Your task to perform on an android device: uninstall "Etsy: Buy & Sell Unique Items" Image 0: 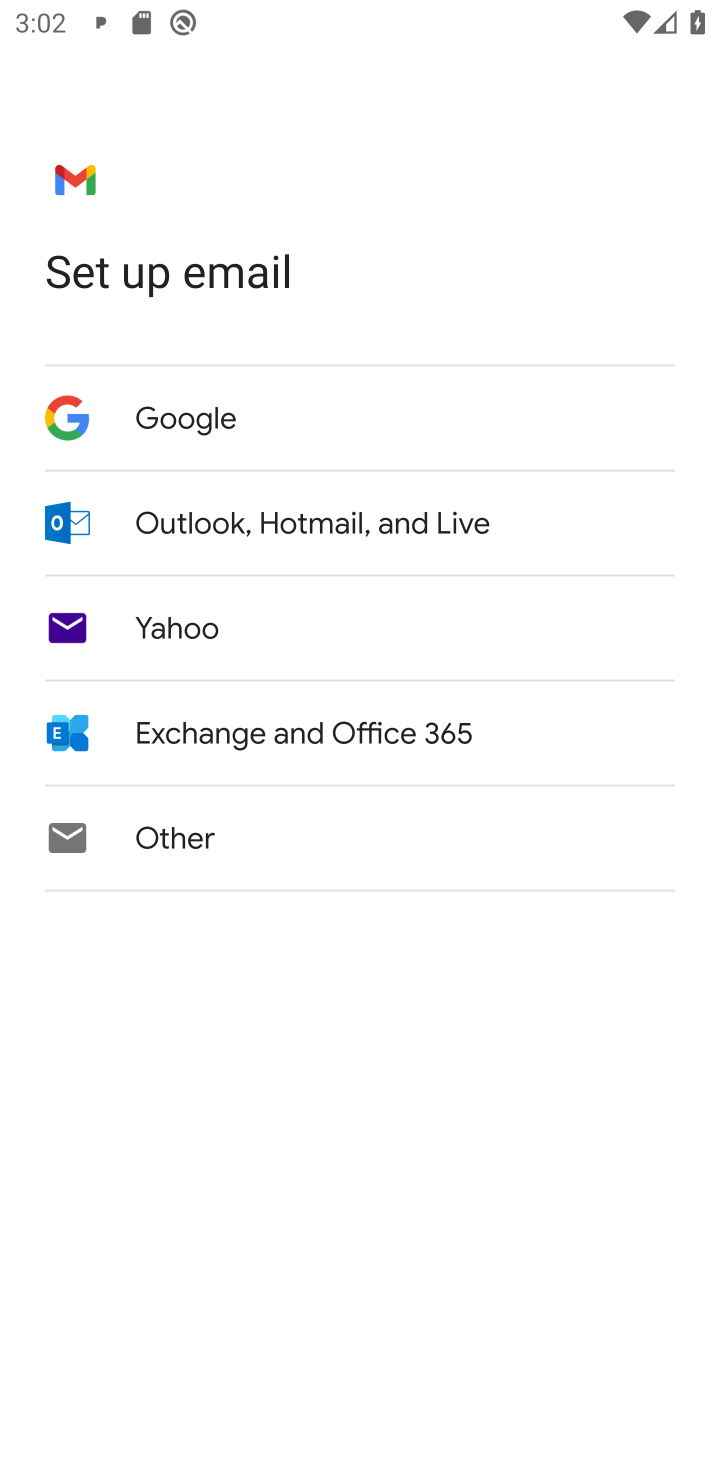
Step 0: press home button
Your task to perform on an android device: uninstall "Etsy: Buy & Sell Unique Items" Image 1: 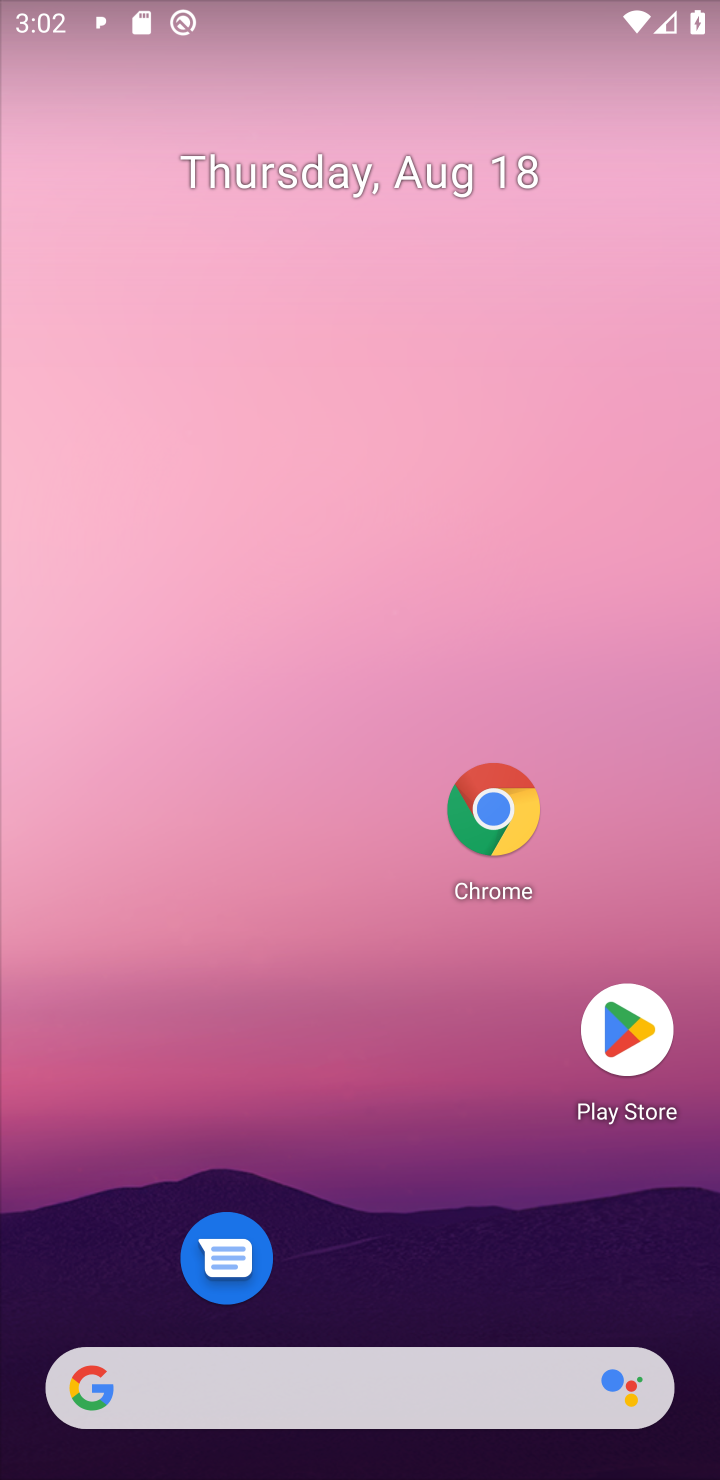
Step 1: drag from (375, 1254) to (382, 391)
Your task to perform on an android device: uninstall "Etsy: Buy & Sell Unique Items" Image 2: 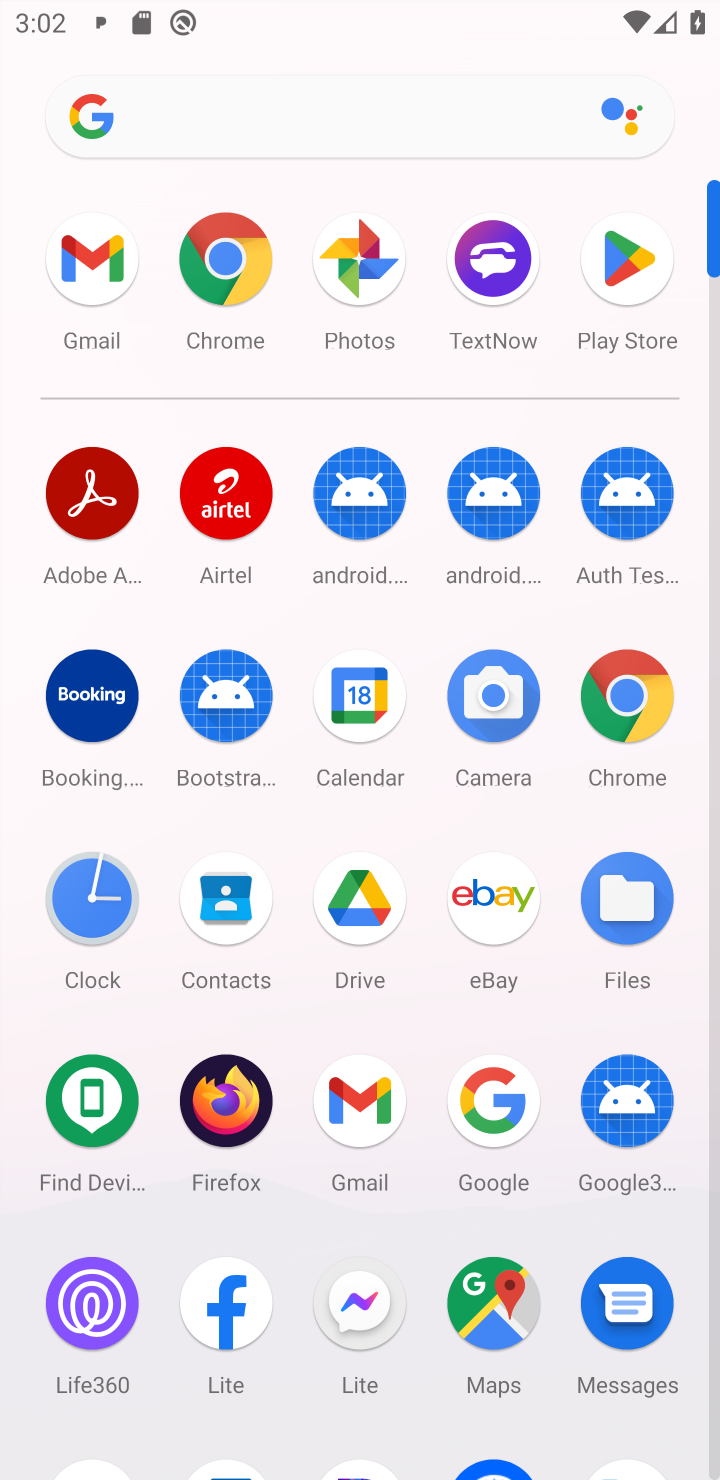
Step 2: click (620, 255)
Your task to perform on an android device: uninstall "Etsy: Buy & Sell Unique Items" Image 3: 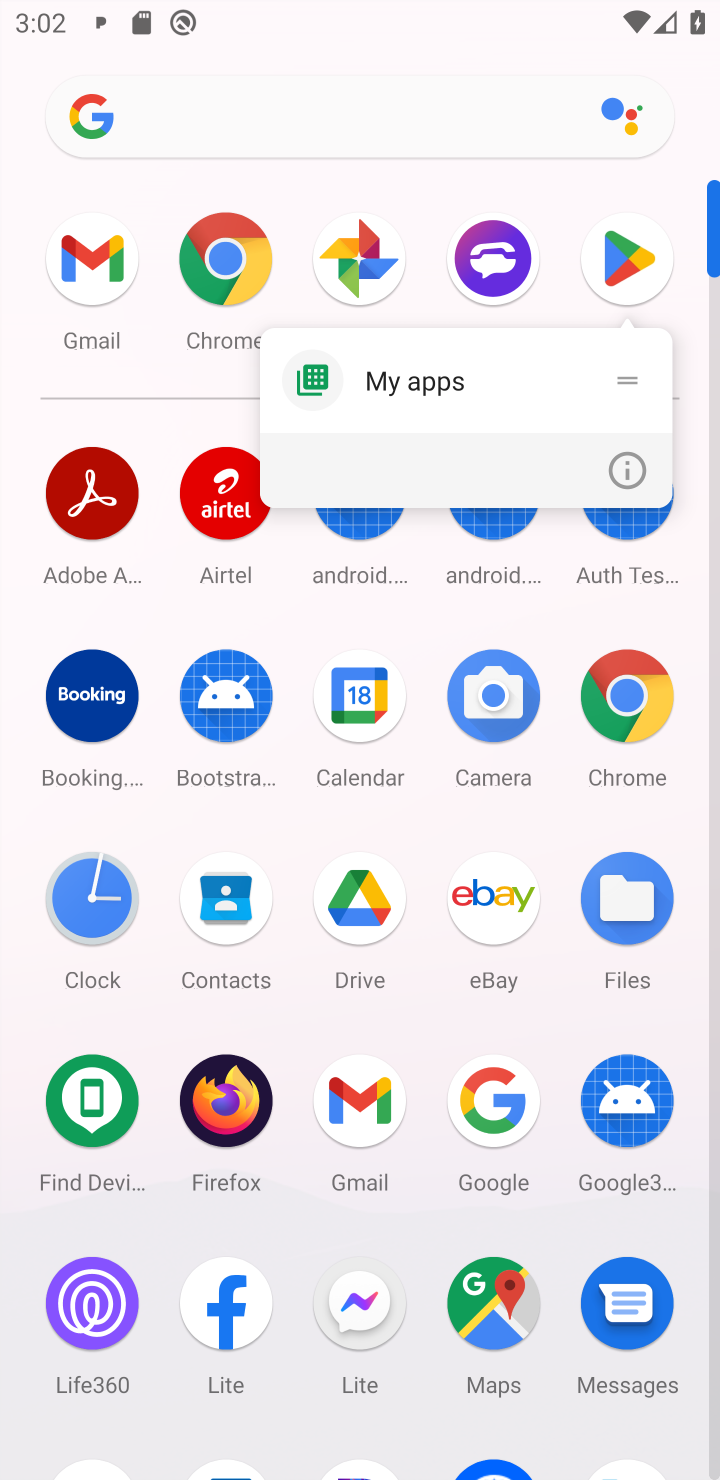
Step 3: click (620, 255)
Your task to perform on an android device: uninstall "Etsy: Buy & Sell Unique Items" Image 4: 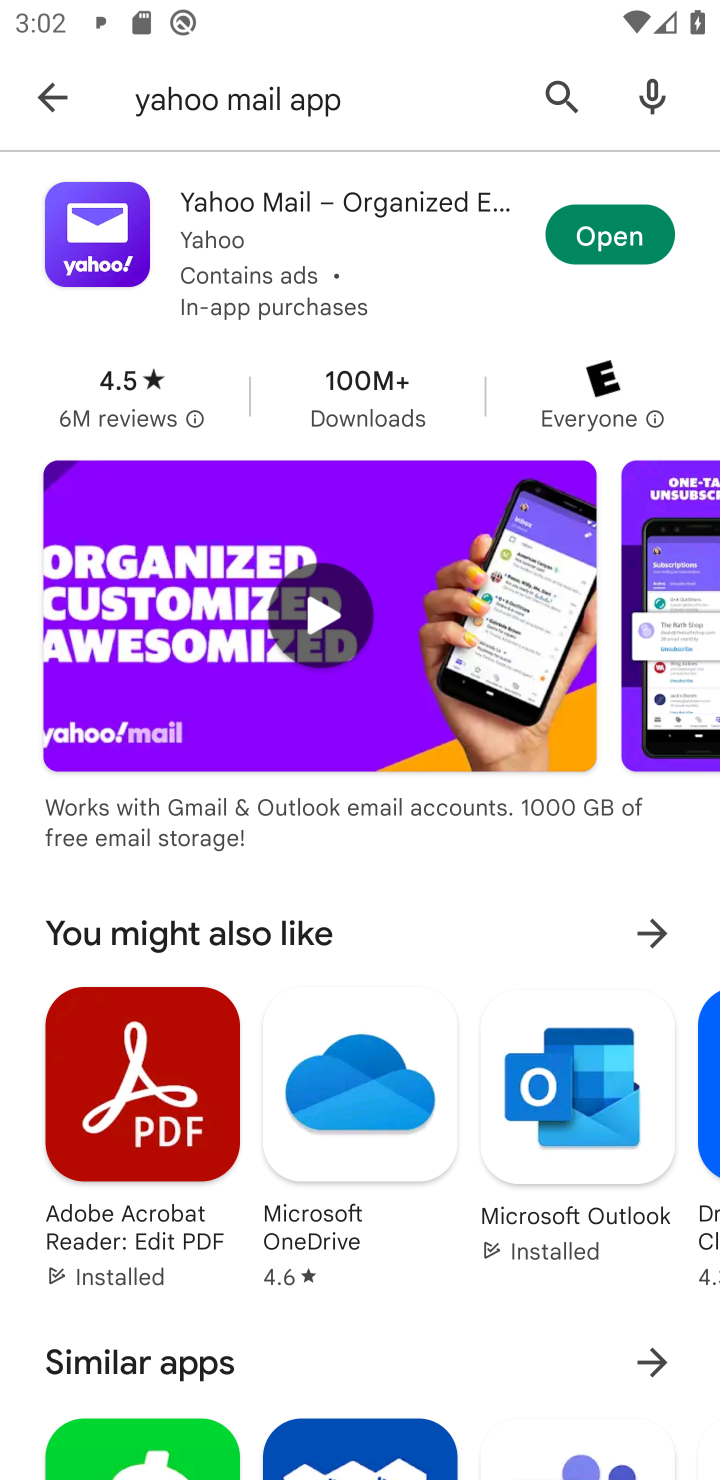
Step 4: click (50, 104)
Your task to perform on an android device: uninstall "Etsy: Buy & Sell Unique Items" Image 5: 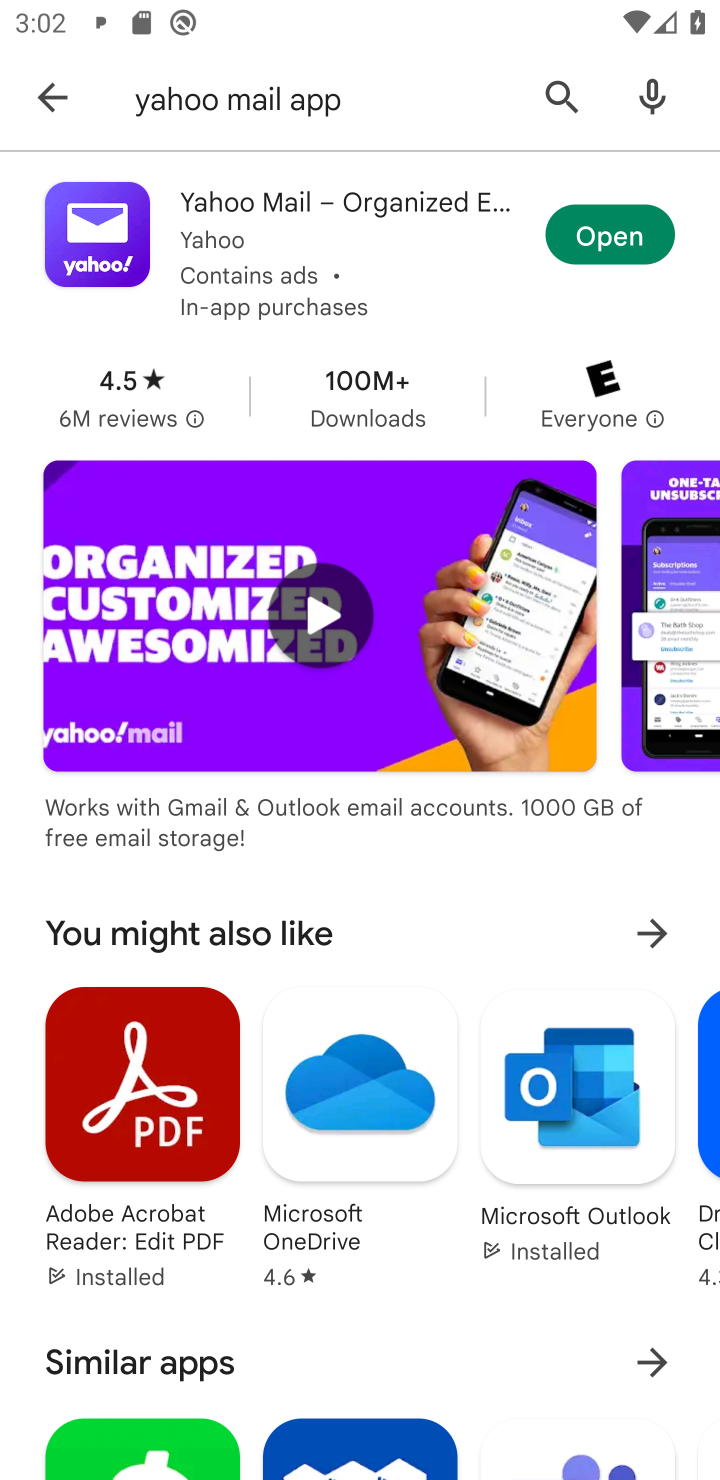
Step 5: click (563, 93)
Your task to perform on an android device: uninstall "Etsy: Buy & Sell Unique Items" Image 6: 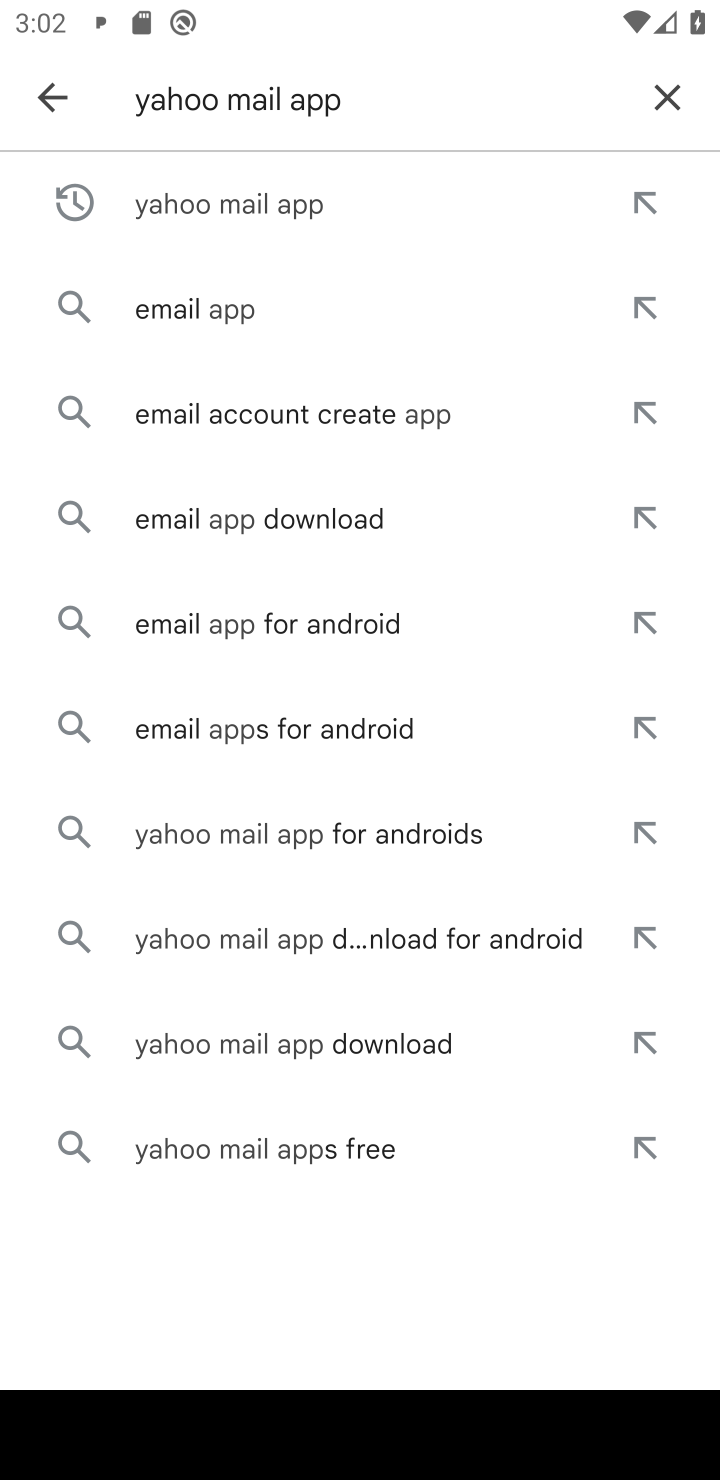
Step 6: click (658, 101)
Your task to perform on an android device: uninstall "Etsy: Buy & Sell Unique Items" Image 7: 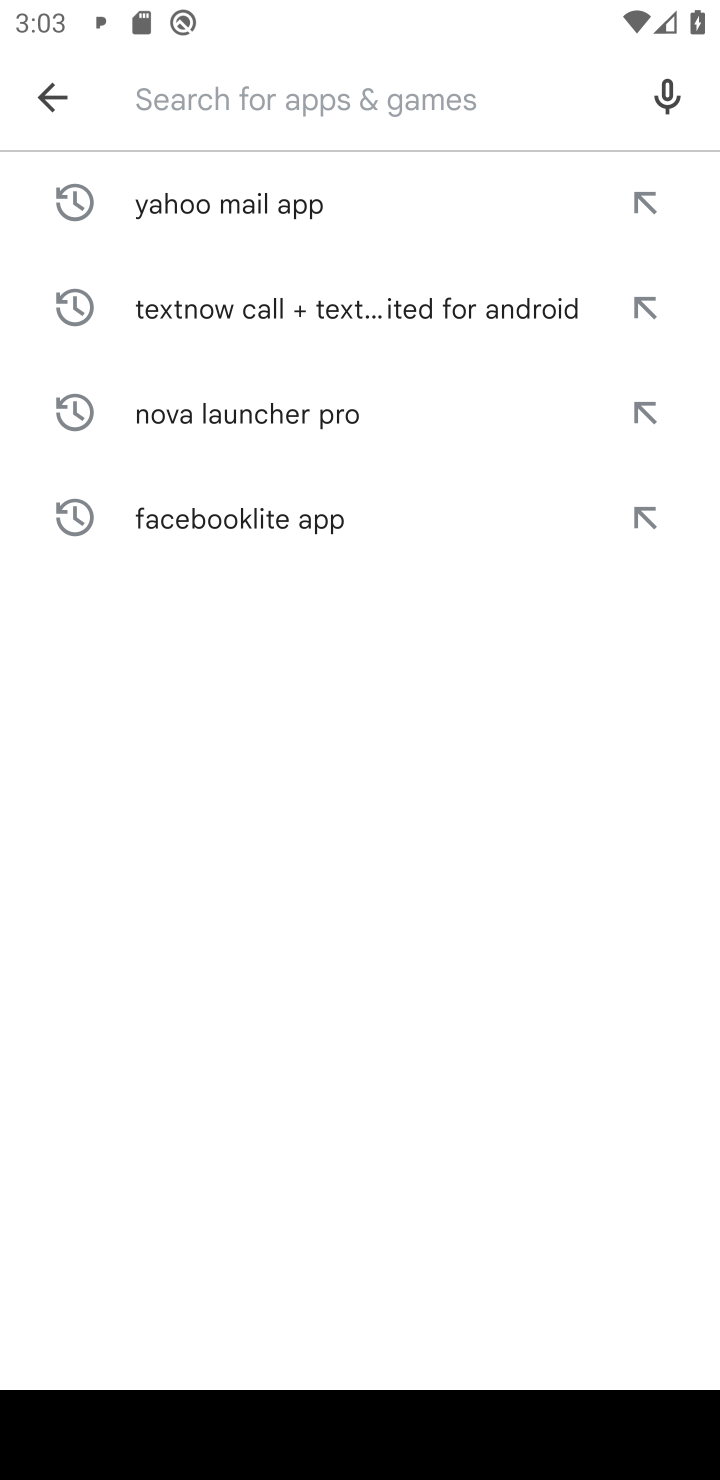
Step 7: click (421, 94)
Your task to perform on an android device: uninstall "Etsy: Buy & Sell Unique Items" Image 8: 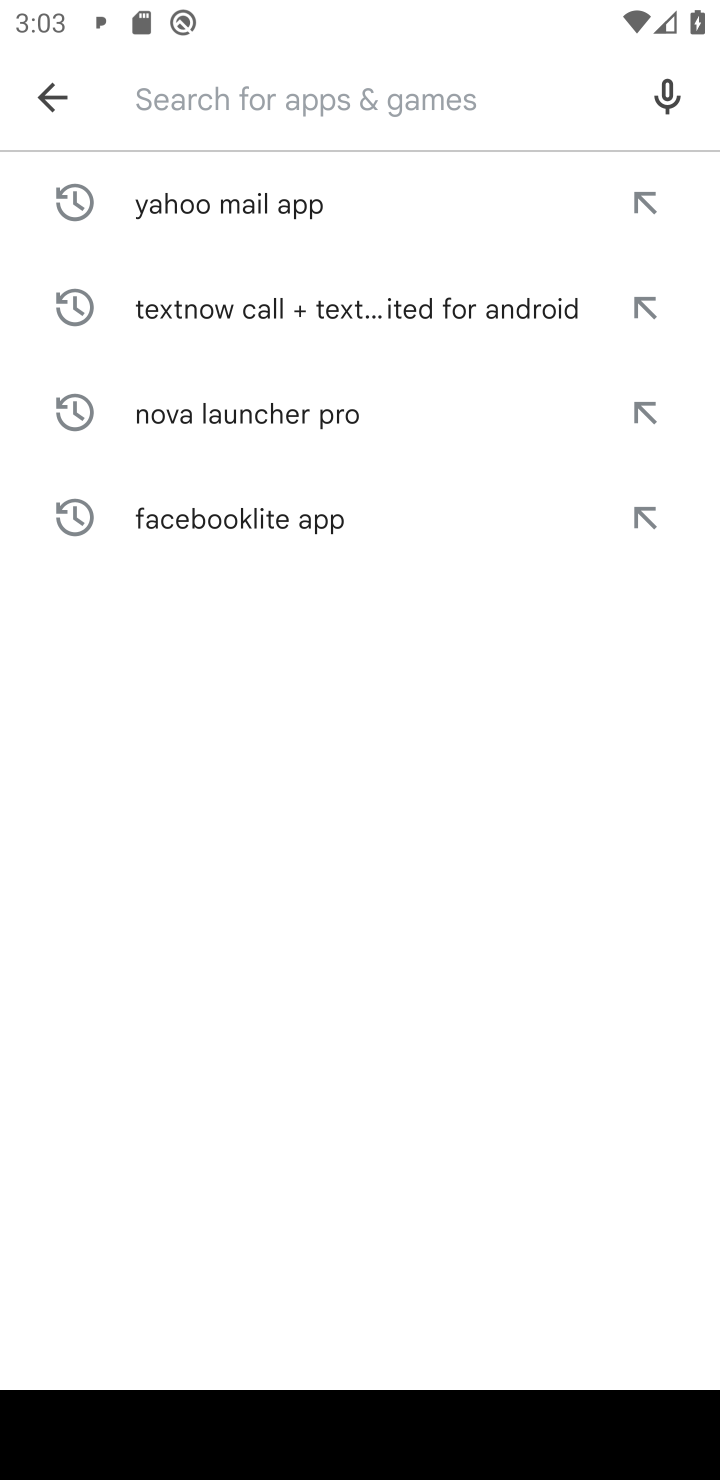
Step 8: type "Etsy: Buy & Sell Unique Items "
Your task to perform on an android device: uninstall "Etsy: Buy & Sell Unique Items" Image 9: 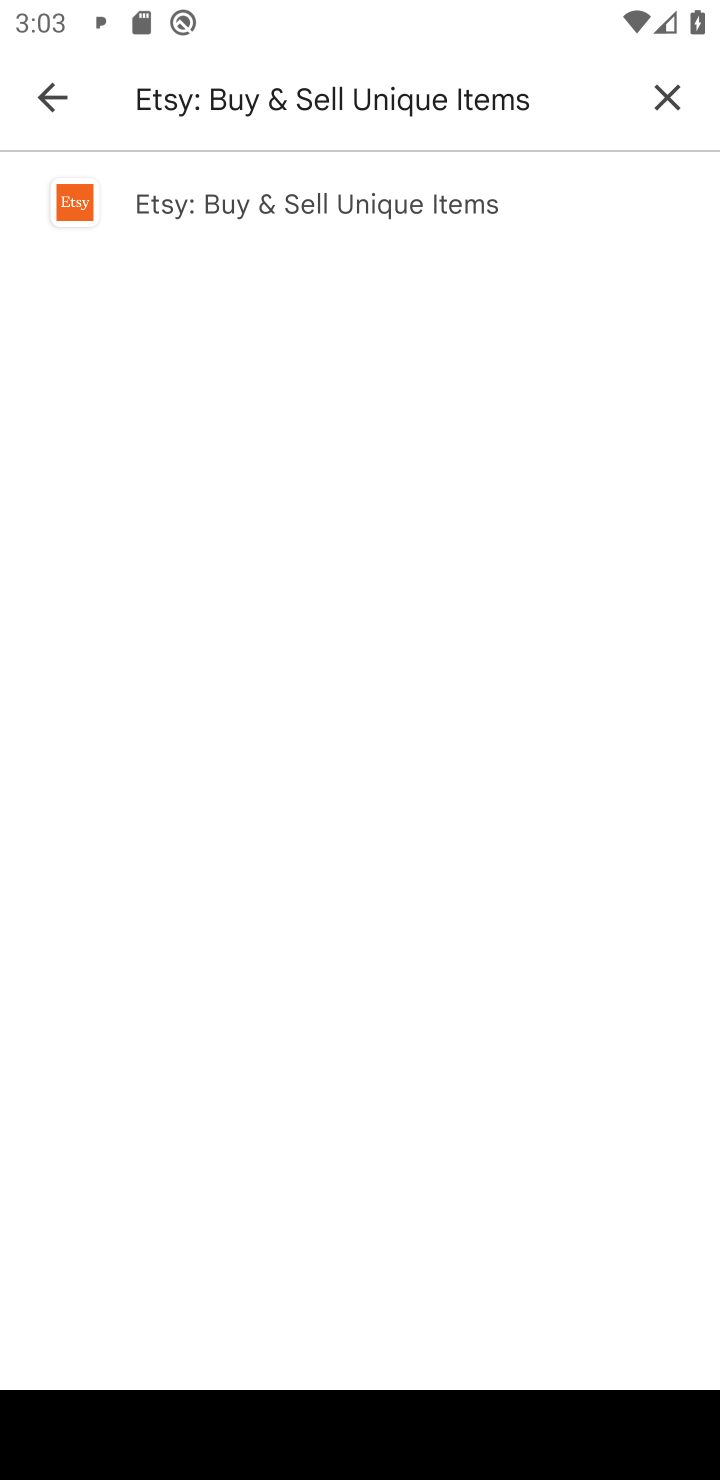
Step 9: click (328, 198)
Your task to perform on an android device: uninstall "Etsy: Buy & Sell Unique Items" Image 10: 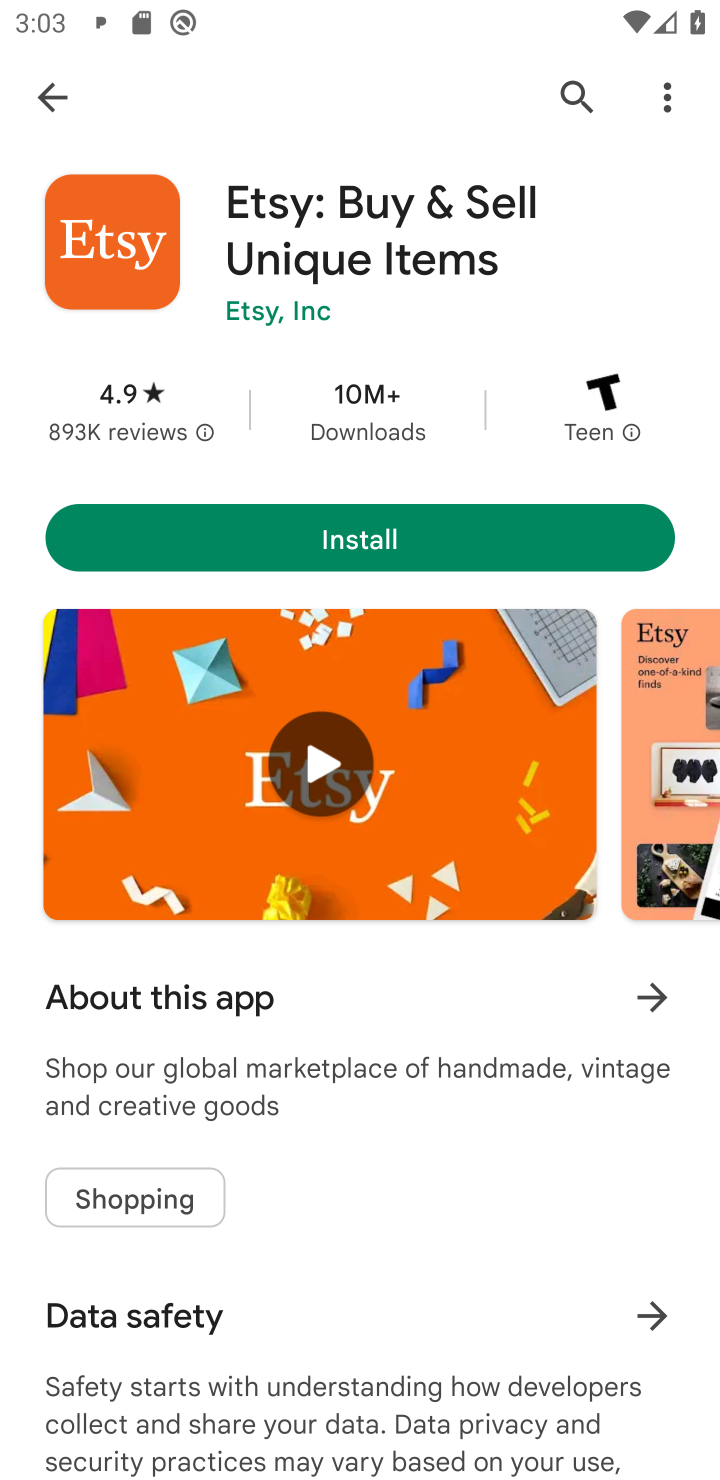
Step 10: task complete